Your task to perform on an android device: open sync settings in chrome Image 0: 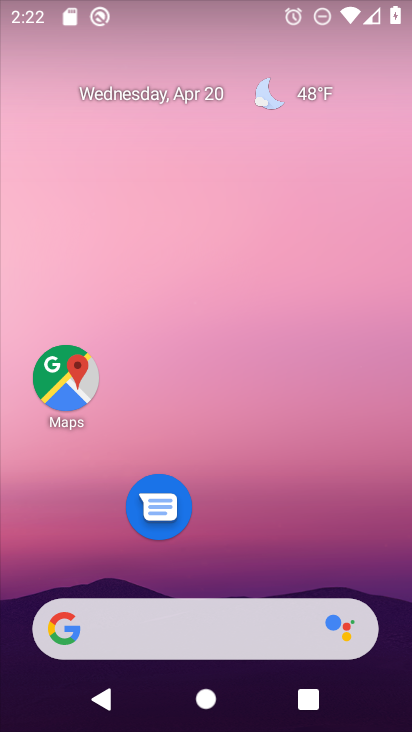
Step 0: drag from (206, 716) to (211, 72)
Your task to perform on an android device: open sync settings in chrome Image 1: 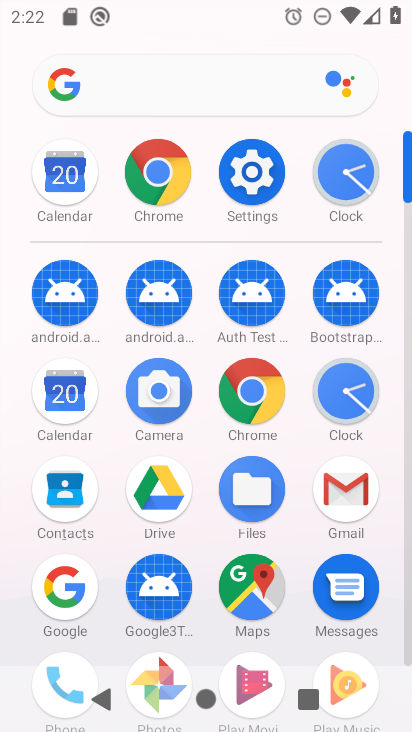
Step 1: click (154, 171)
Your task to perform on an android device: open sync settings in chrome Image 2: 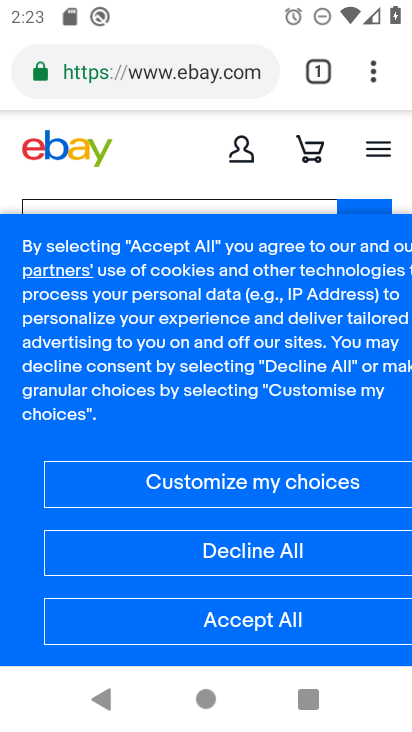
Step 2: click (374, 79)
Your task to perform on an android device: open sync settings in chrome Image 3: 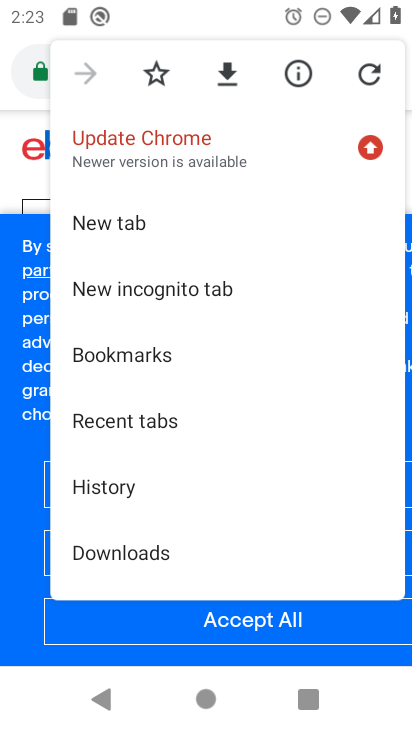
Step 3: drag from (190, 533) to (198, 258)
Your task to perform on an android device: open sync settings in chrome Image 4: 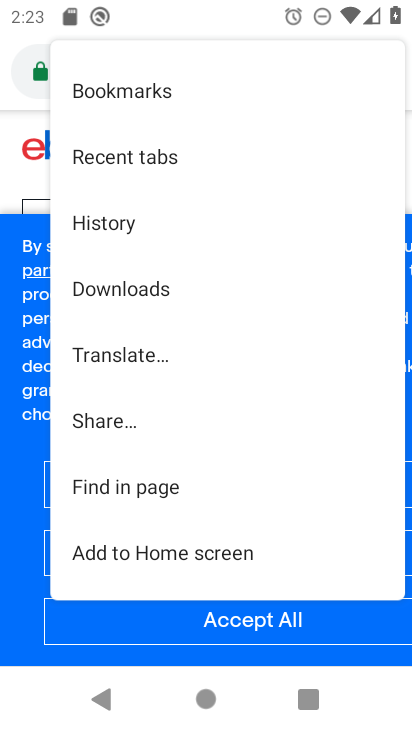
Step 4: drag from (196, 547) to (231, 193)
Your task to perform on an android device: open sync settings in chrome Image 5: 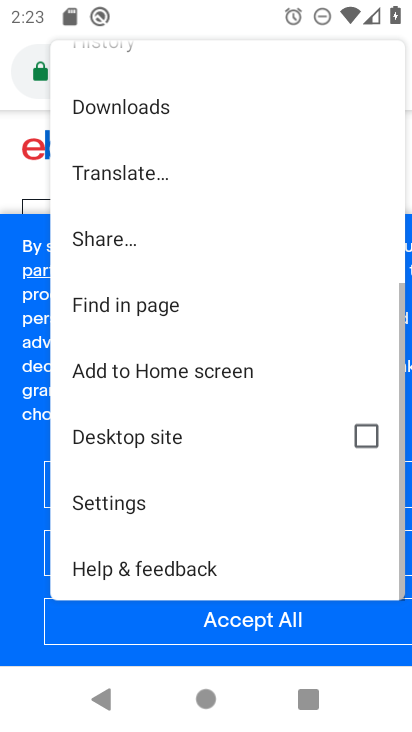
Step 5: click (115, 499)
Your task to perform on an android device: open sync settings in chrome Image 6: 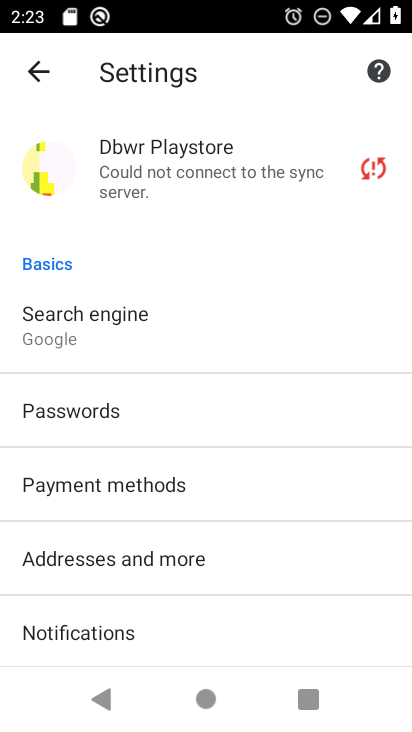
Step 6: drag from (178, 630) to (189, 186)
Your task to perform on an android device: open sync settings in chrome Image 7: 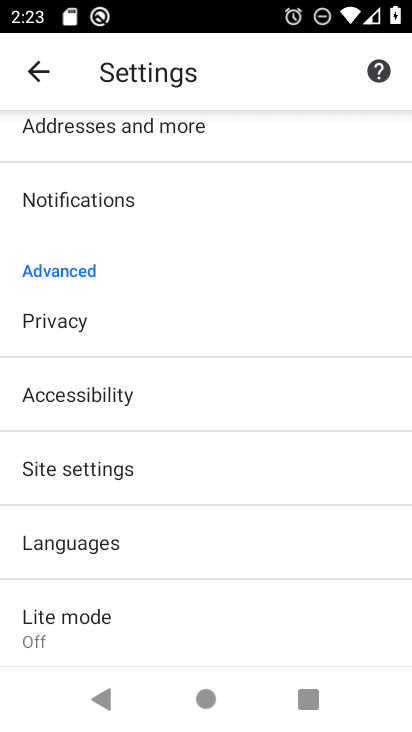
Step 7: click (100, 468)
Your task to perform on an android device: open sync settings in chrome Image 8: 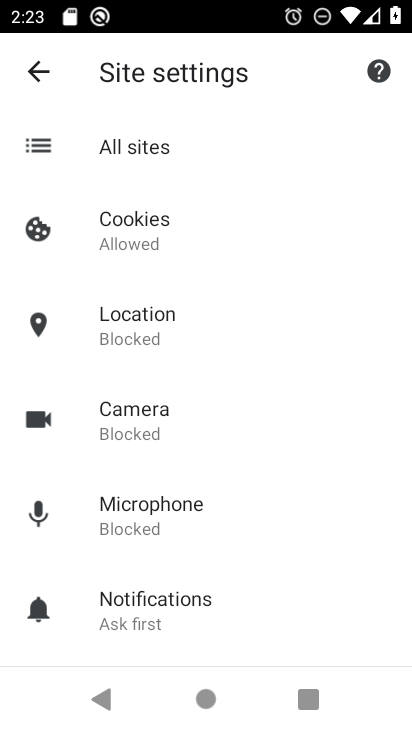
Step 8: drag from (206, 628) to (217, 253)
Your task to perform on an android device: open sync settings in chrome Image 9: 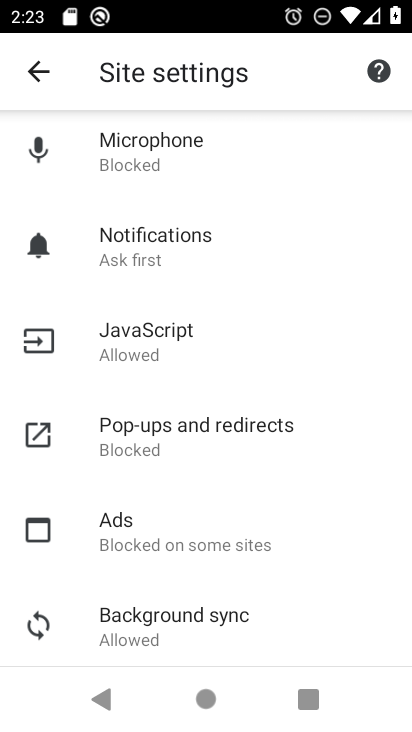
Step 9: click (176, 611)
Your task to perform on an android device: open sync settings in chrome Image 10: 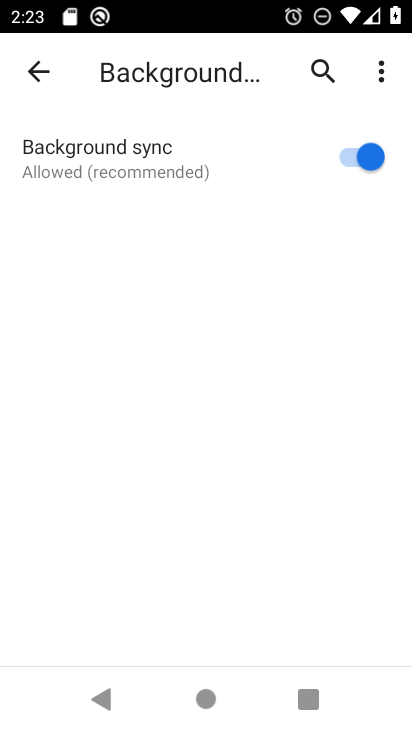
Step 10: task complete